Your task to perform on an android device: change the clock display to analog Image 0: 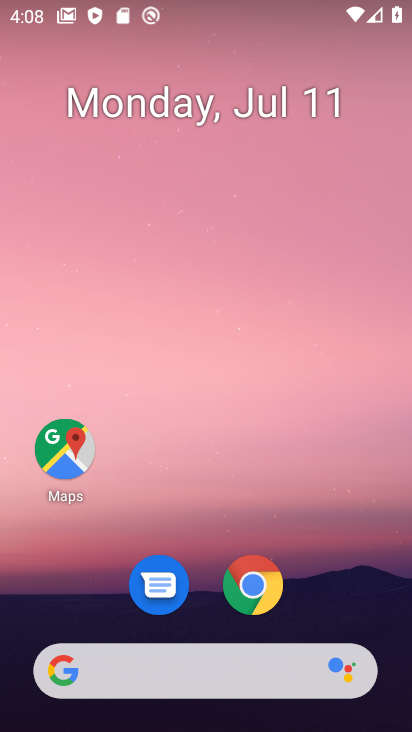
Step 0: drag from (315, 203) to (307, 30)
Your task to perform on an android device: change the clock display to analog Image 1: 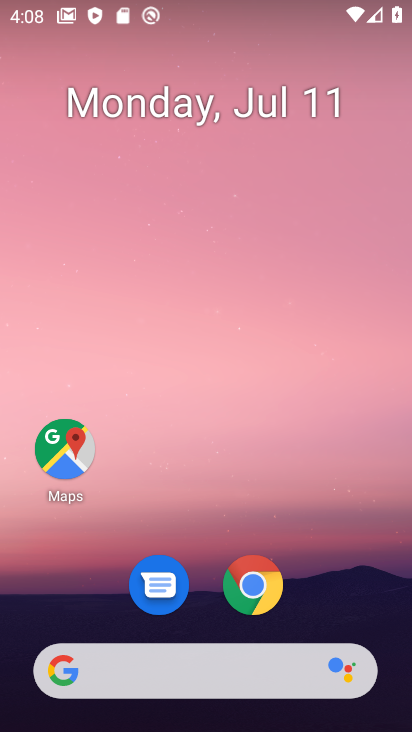
Step 1: drag from (191, 513) to (269, 2)
Your task to perform on an android device: change the clock display to analog Image 2: 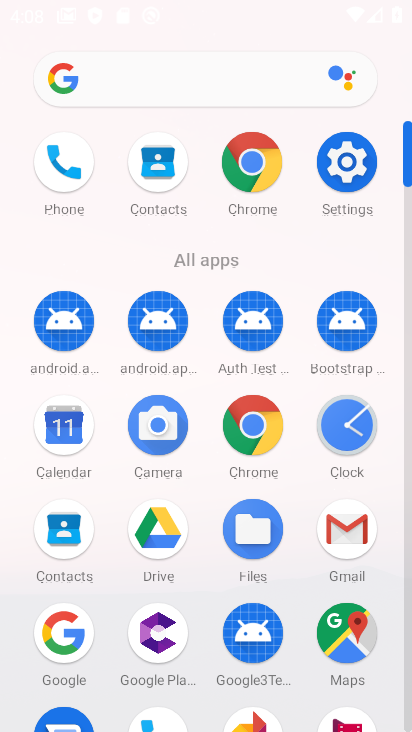
Step 2: click (350, 434)
Your task to perform on an android device: change the clock display to analog Image 3: 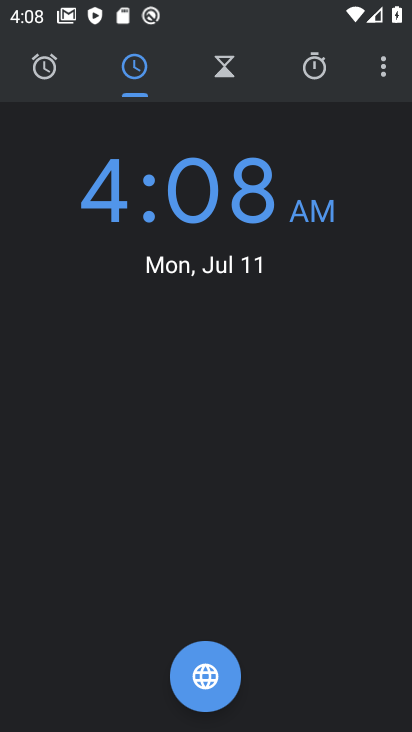
Step 3: click (383, 67)
Your task to perform on an android device: change the clock display to analog Image 4: 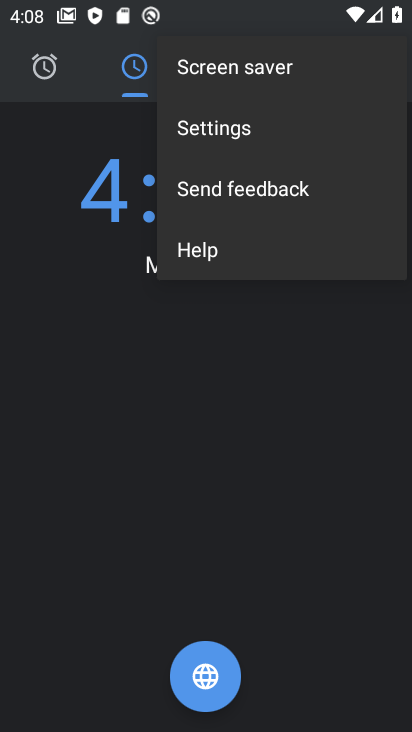
Step 4: click (279, 130)
Your task to perform on an android device: change the clock display to analog Image 5: 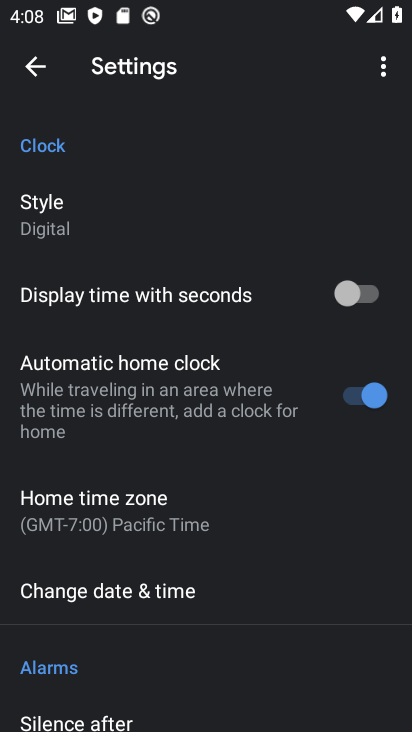
Step 5: click (59, 214)
Your task to perform on an android device: change the clock display to analog Image 6: 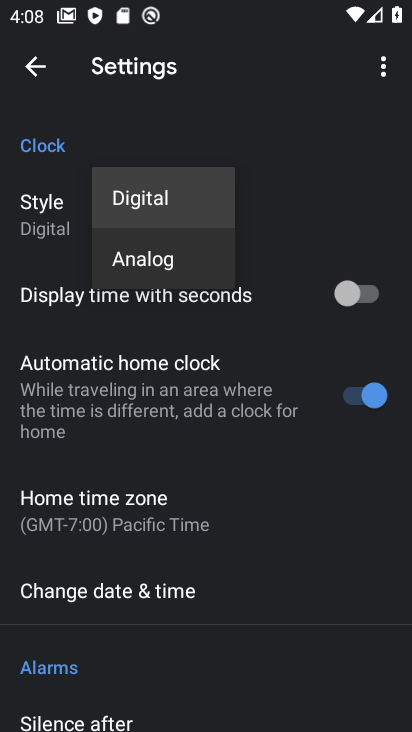
Step 6: click (126, 257)
Your task to perform on an android device: change the clock display to analog Image 7: 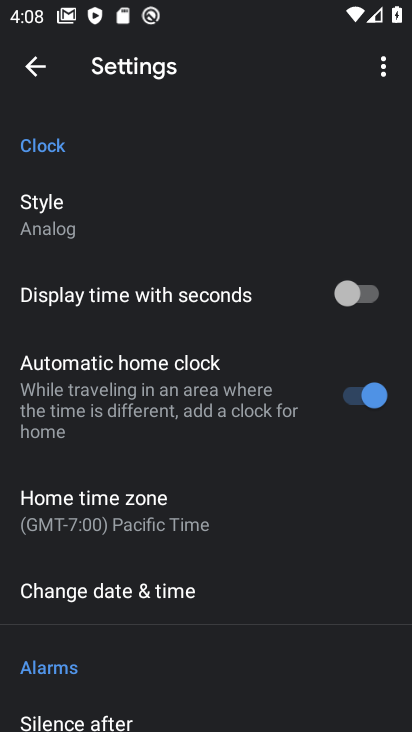
Step 7: task complete